Your task to perform on an android device: open app "Truecaller" (install if not already installed) Image 0: 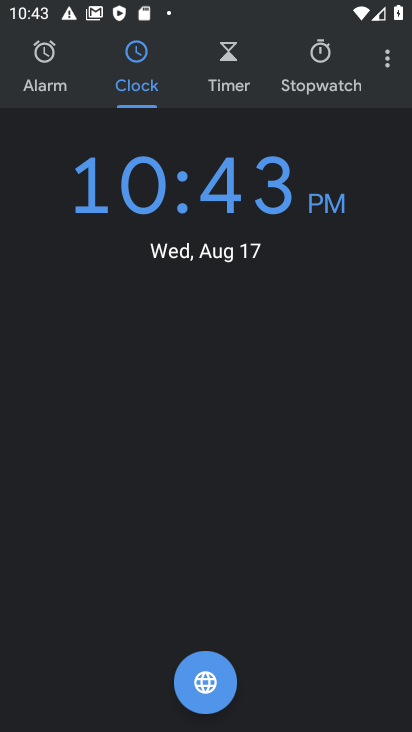
Step 0: press home button
Your task to perform on an android device: open app "Truecaller" (install if not already installed) Image 1: 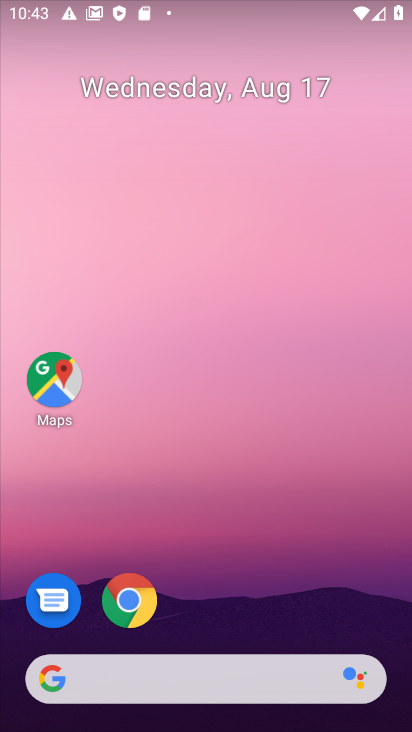
Step 1: drag from (214, 633) to (221, 70)
Your task to perform on an android device: open app "Truecaller" (install if not already installed) Image 2: 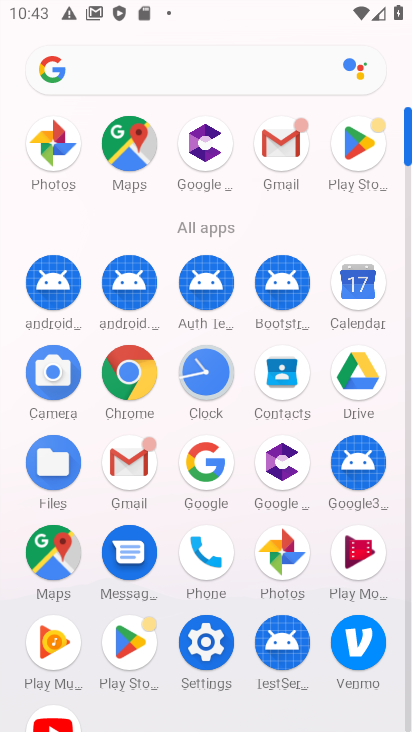
Step 2: click (123, 636)
Your task to perform on an android device: open app "Truecaller" (install if not already installed) Image 3: 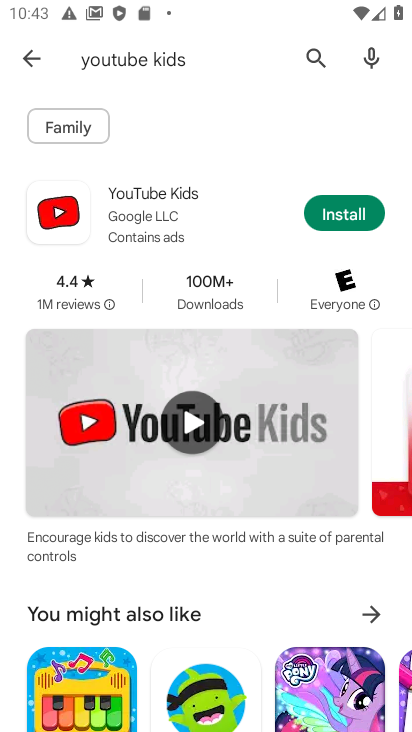
Step 3: click (324, 55)
Your task to perform on an android device: open app "Truecaller" (install if not already installed) Image 4: 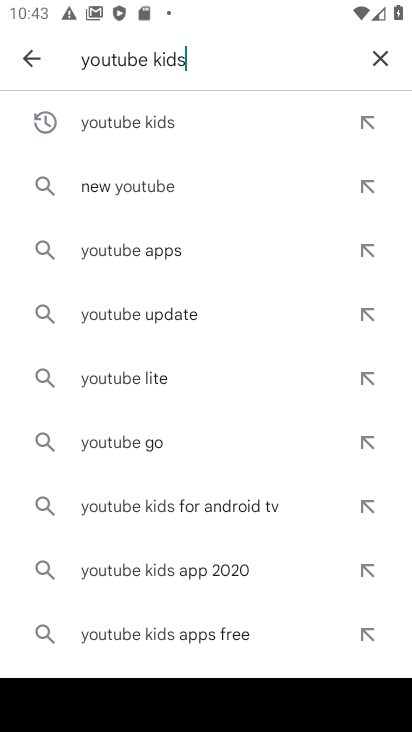
Step 4: click (378, 57)
Your task to perform on an android device: open app "Truecaller" (install if not already installed) Image 5: 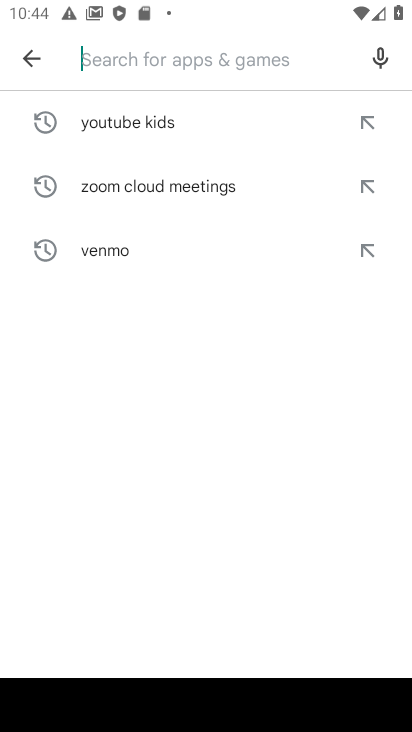
Step 5: type "Truecaller"
Your task to perform on an android device: open app "Truecaller" (install if not already installed) Image 6: 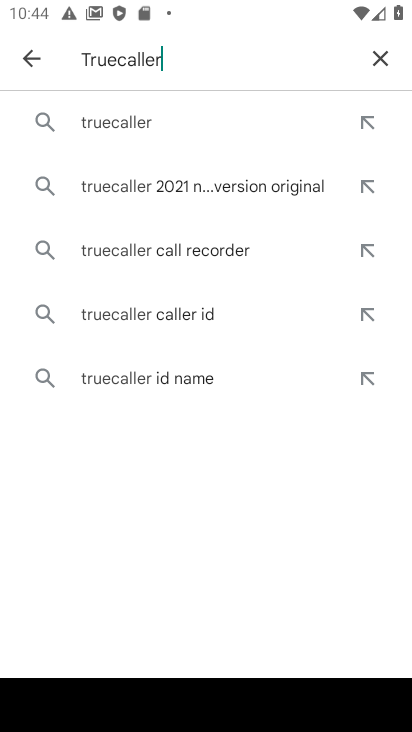
Step 6: click (143, 122)
Your task to perform on an android device: open app "Truecaller" (install if not already installed) Image 7: 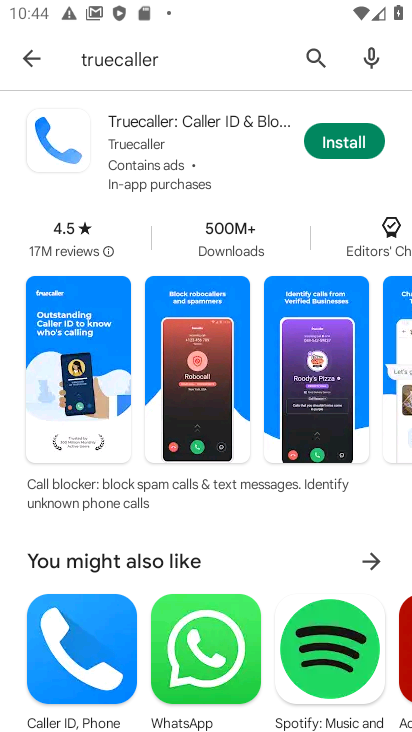
Step 7: click (330, 155)
Your task to perform on an android device: open app "Truecaller" (install if not already installed) Image 8: 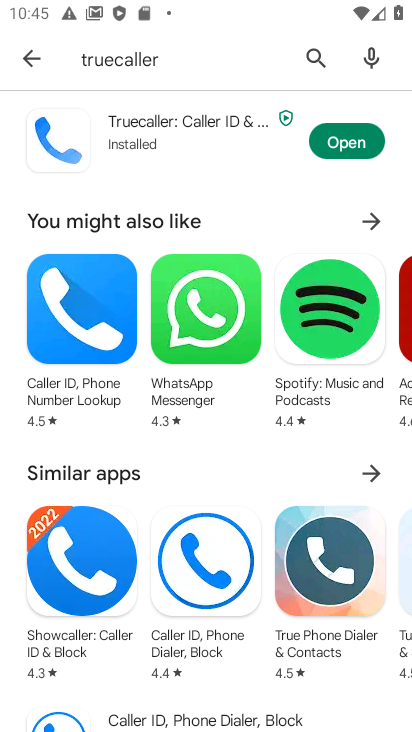
Step 8: click (340, 138)
Your task to perform on an android device: open app "Truecaller" (install if not already installed) Image 9: 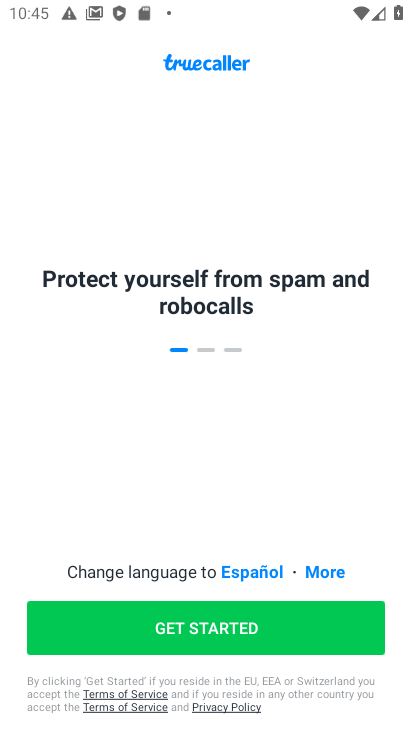
Step 9: task complete